Your task to perform on an android device: Go to Google maps Image 0: 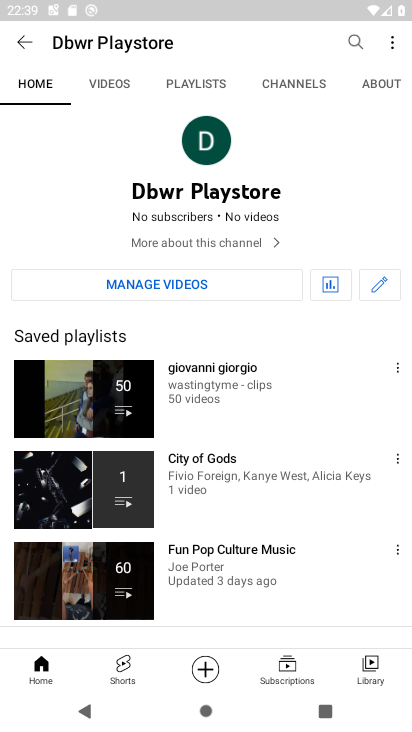
Step 0: press home button
Your task to perform on an android device: Go to Google maps Image 1: 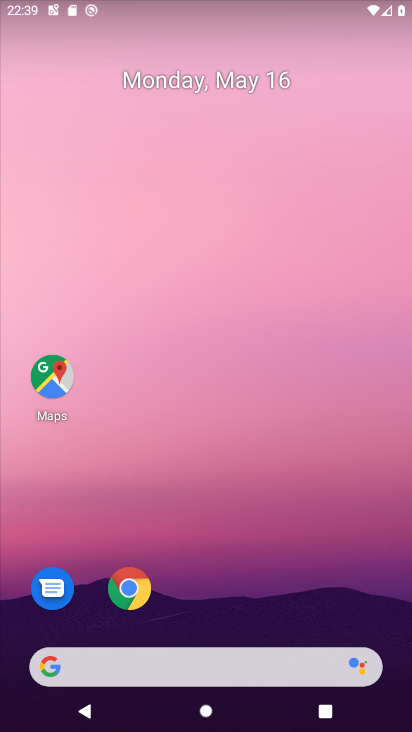
Step 1: click (52, 371)
Your task to perform on an android device: Go to Google maps Image 2: 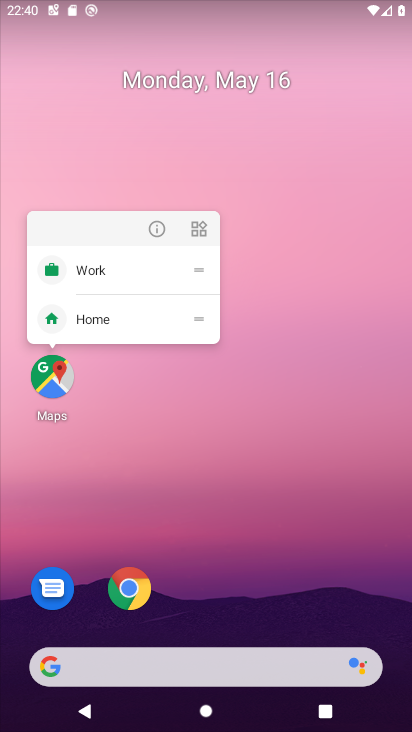
Step 2: click (47, 371)
Your task to perform on an android device: Go to Google maps Image 3: 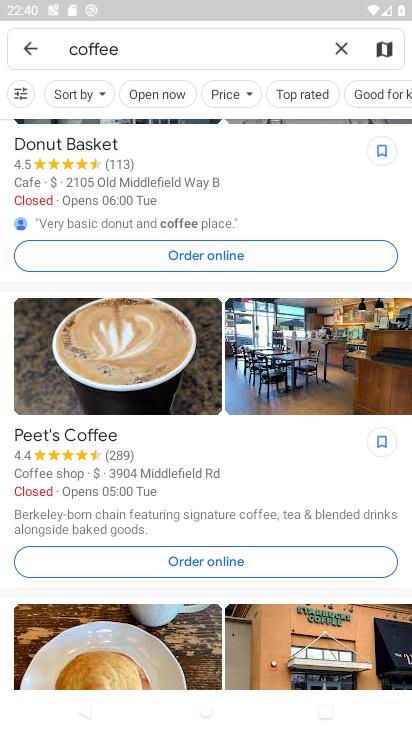
Step 3: click (35, 46)
Your task to perform on an android device: Go to Google maps Image 4: 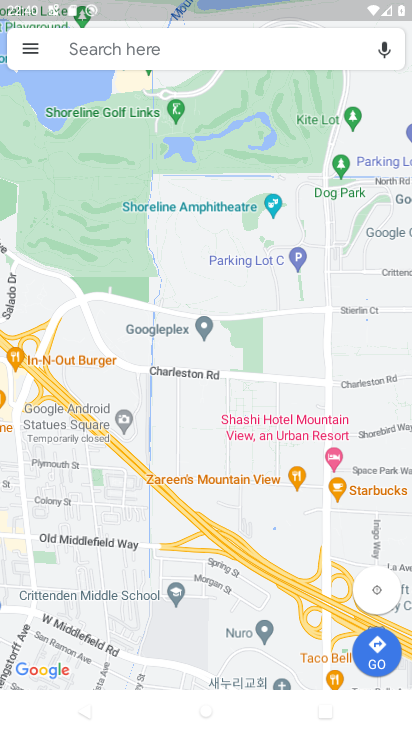
Step 4: task complete